Your task to perform on an android device: turn off improve location accuracy Image 0: 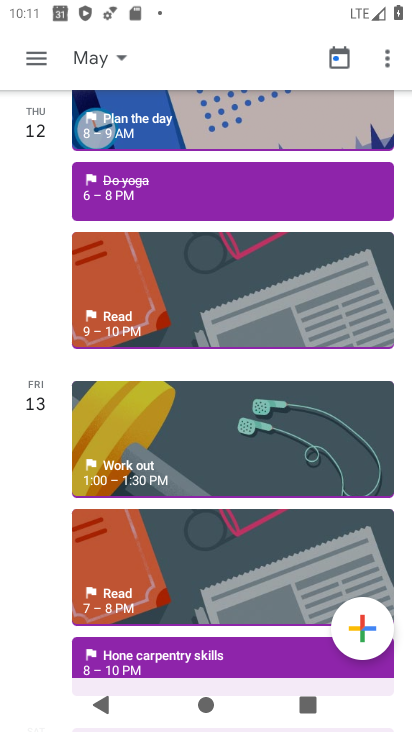
Step 0: press home button
Your task to perform on an android device: turn off improve location accuracy Image 1: 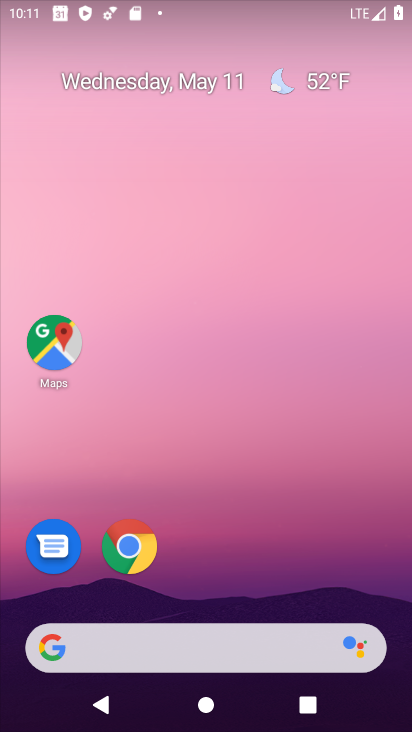
Step 1: drag from (217, 639) to (74, 0)
Your task to perform on an android device: turn off improve location accuracy Image 2: 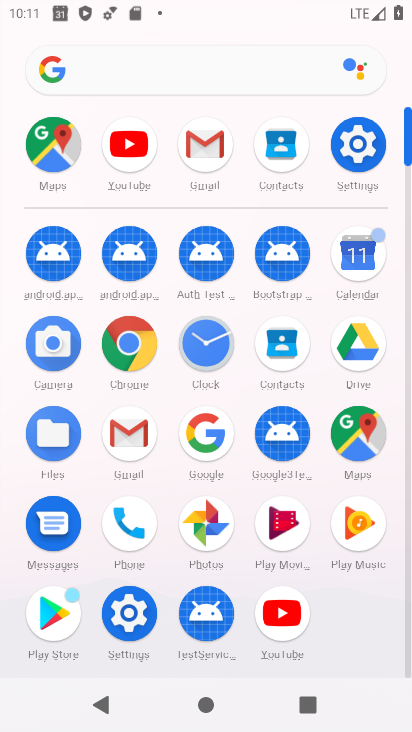
Step 2: click (360, 156)
Your task to perform on an android device: turn off improve location accuracy Image 3: 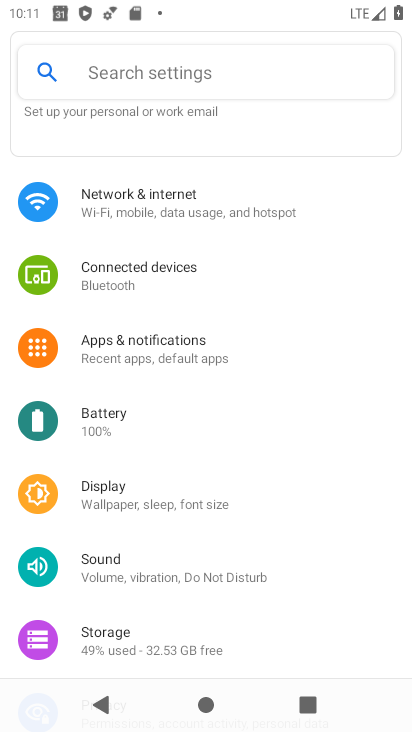
Step 3: drag from (124, 608) to (4, 200)
Your task to perform on an android device: turn off improve location accuracy Image 4: 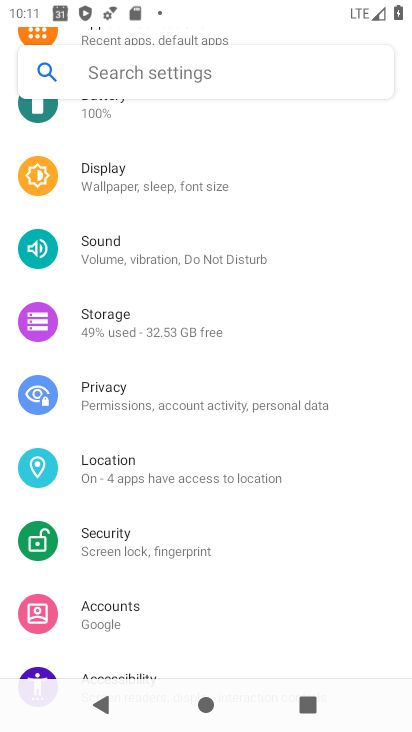
Step 4: click (116, 466)
Your task to perform on an android device: turn off improve location accuracy Image 5: 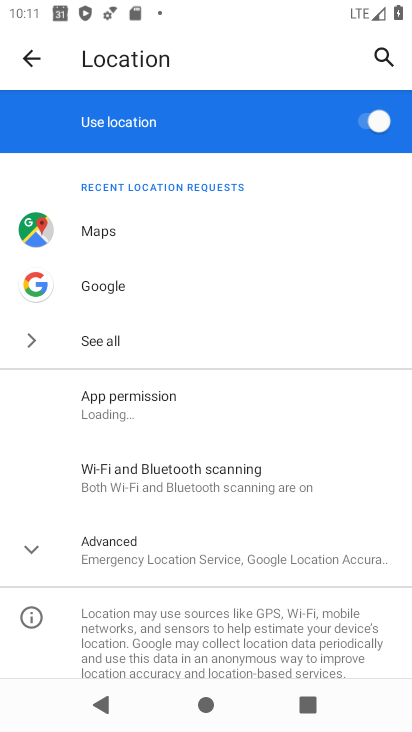
Step 5: click (118, 544)
Your task to perform on an android device: turn off improve location accuracy Image 6: 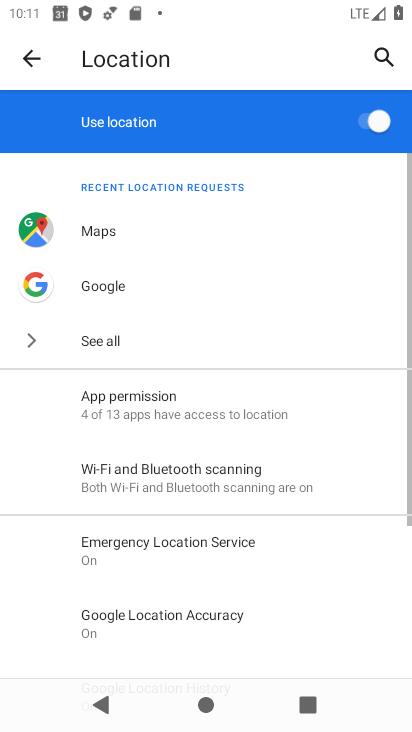
Step 6: drag from (172, 592) to (115, 226)
Your task to perform on an android device: turn off improve location accuracy Image 7: 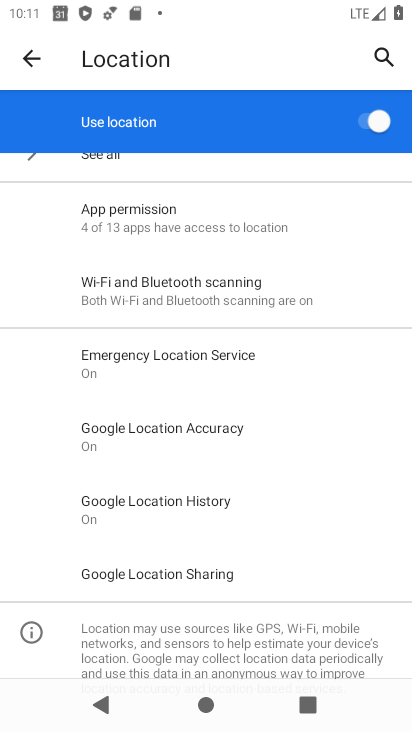
Step 7: click (132, 423)
Your task to perform on an android device: turn off improve location accuracy Image 8: 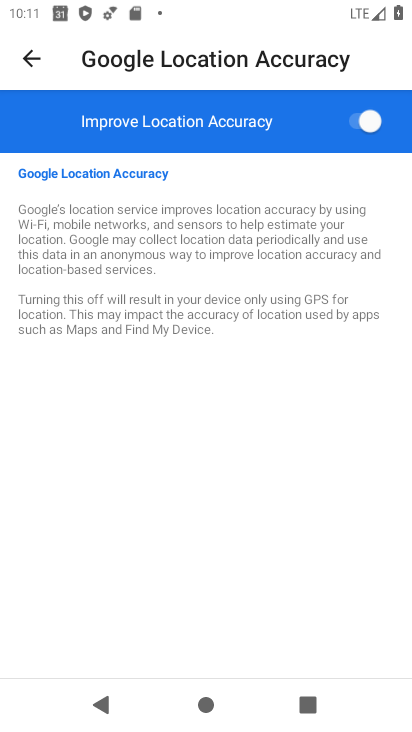
Step 8: click (358, 123)
Your task to perform on an android device: turn off improve location accuracy Image 9: 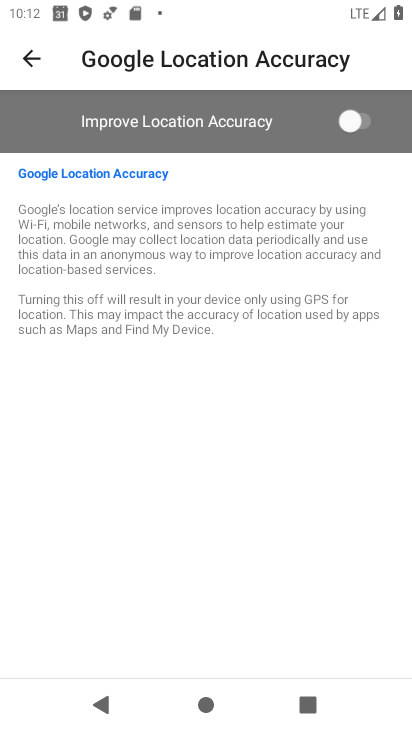
Step 9: task complete